Your task to perform on an android device: Open calendar and show me the second week of next month Image 0: 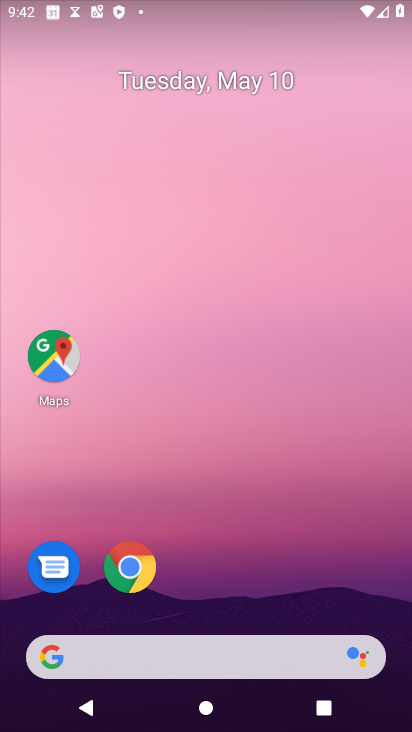
Step 0: drag from (35, 611) to (320, 166)
Your task to perform on an android device: Open calendar and show me the second week of next month Image 1: 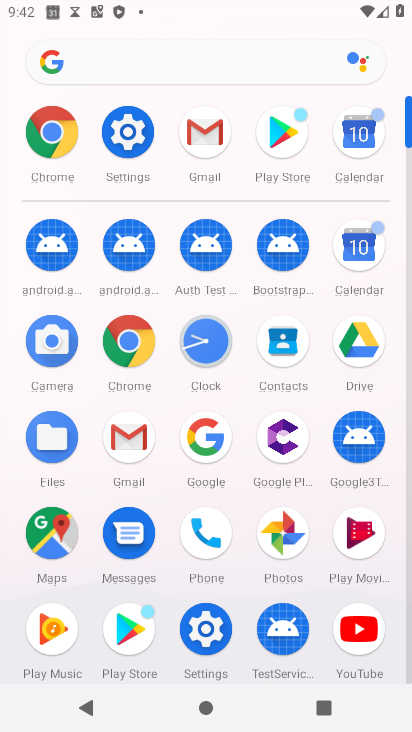
Step 1: click (352, 128)
Your task to perform on an android device: Open calendar and show me the second week of next month Image 2: 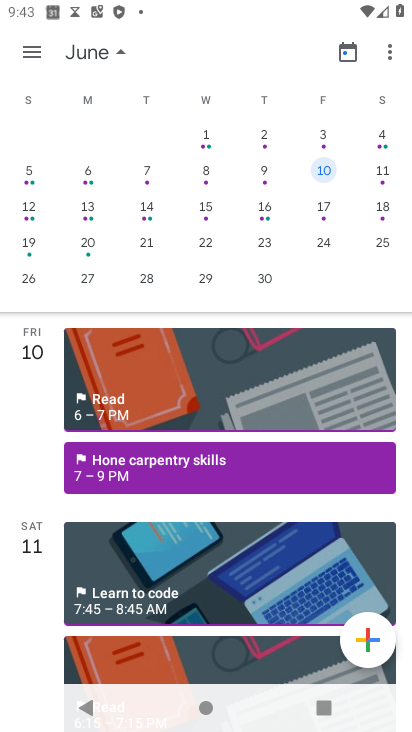
Step 2: click (80, 173)
Your task to perform on an android device: Open calendar and show me the second week of next month Image 3: 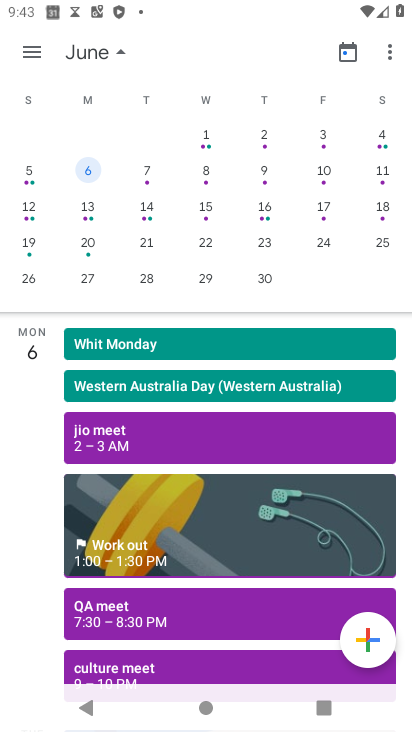
Step 3: click (154, 170)
Your task to perform on an android device: Open calendar and show me the second week of next month Image 4: 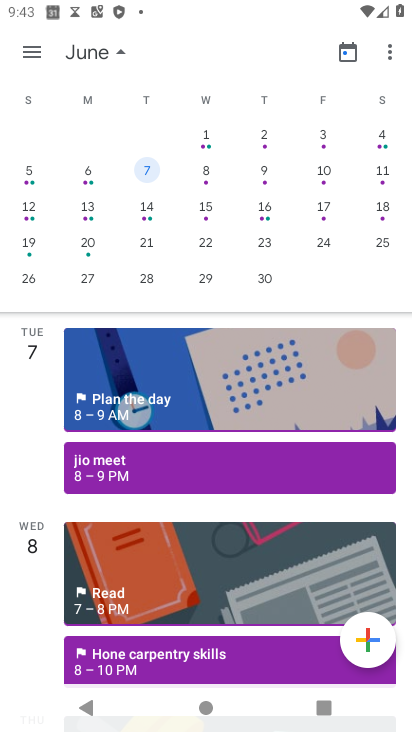
Step 4: click (205, 170)
Your task to perform on an android device: Open calendar and show me the second week of next month Image 5: 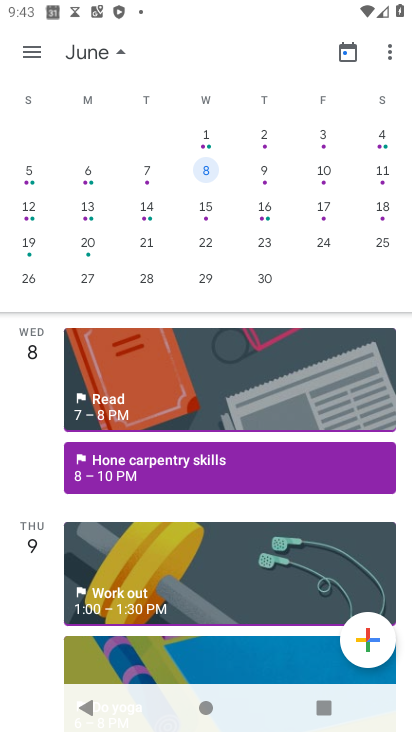
Step 5: click (267, 174)
Your task to perform on an android device: Open calendar and show me the second week of next month Image 6: 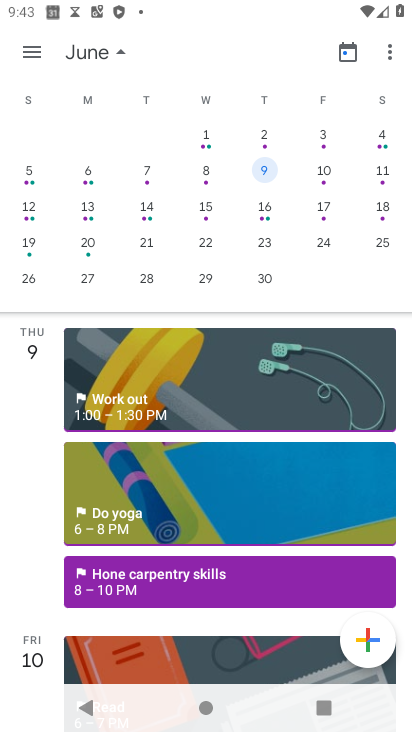
Step 6: click (328, 175)
Your task to perform on an android device: Open calendar and show me the second week of next month Image 7: 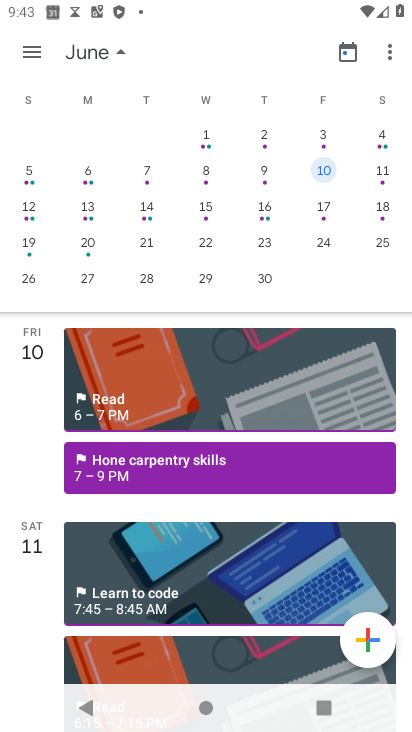
Step 7: task complete